Your task to perform on an android device: turn off data saver in the chrome app Image 0: 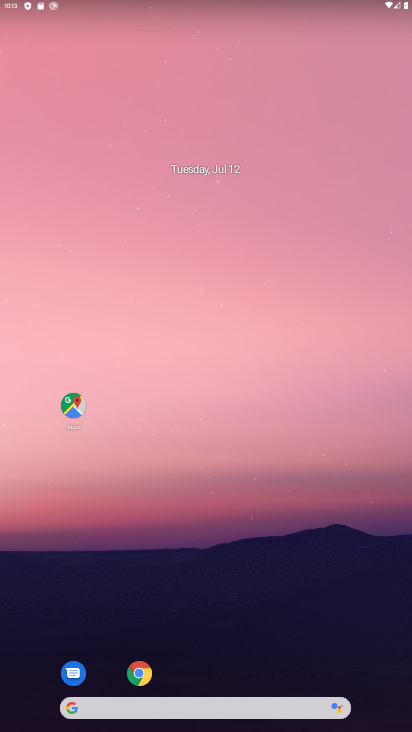
Step 0: drag from (325, 640) to (343, 75)
Your task to perform on an android device: turn off data saver in the chrome app Image 1: 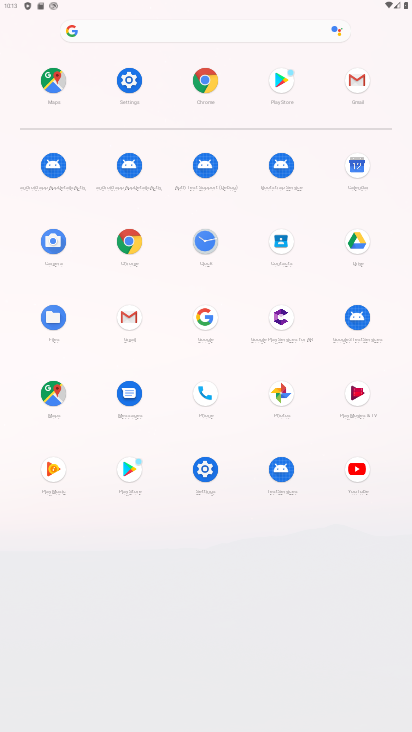
Step 1: click (126, 244)
Your task to perform on an android device: turn off data saver in the chrome app Image 2: 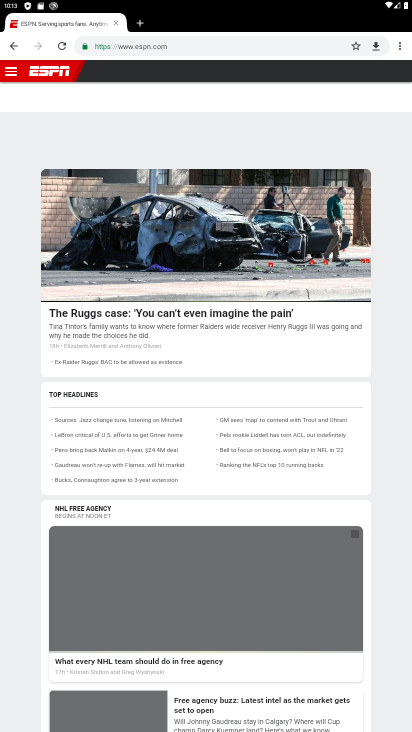
Step 2: drag from (400, 42) to (309, 330)
Your task to perform on an android device: turn off data saver in the chrome app Image 3: 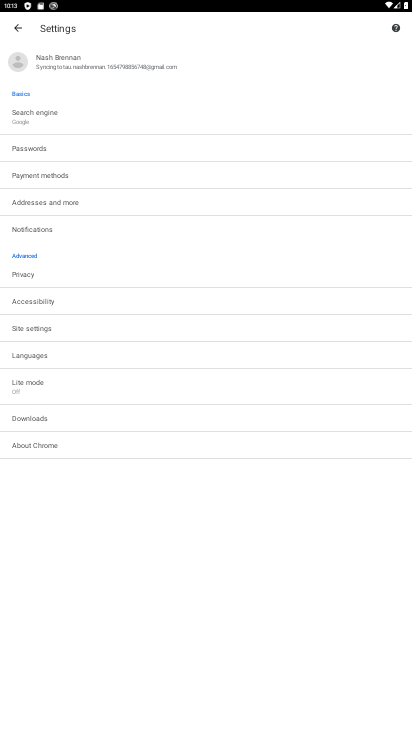
Step 3: click (50, 382)
Your task to perform on an android device: turn off data saver in the chrome app Image 4: 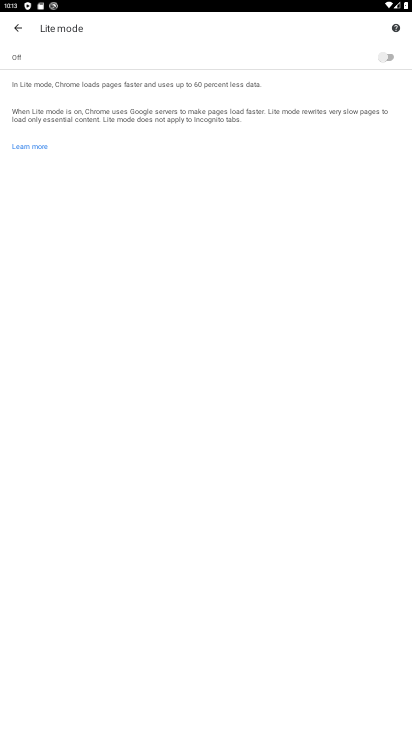
Step 4: task complete